Your task to perform on an android device: open app "Microsoft Authenticator" (install if not already installed) and go to login screen Image 0: 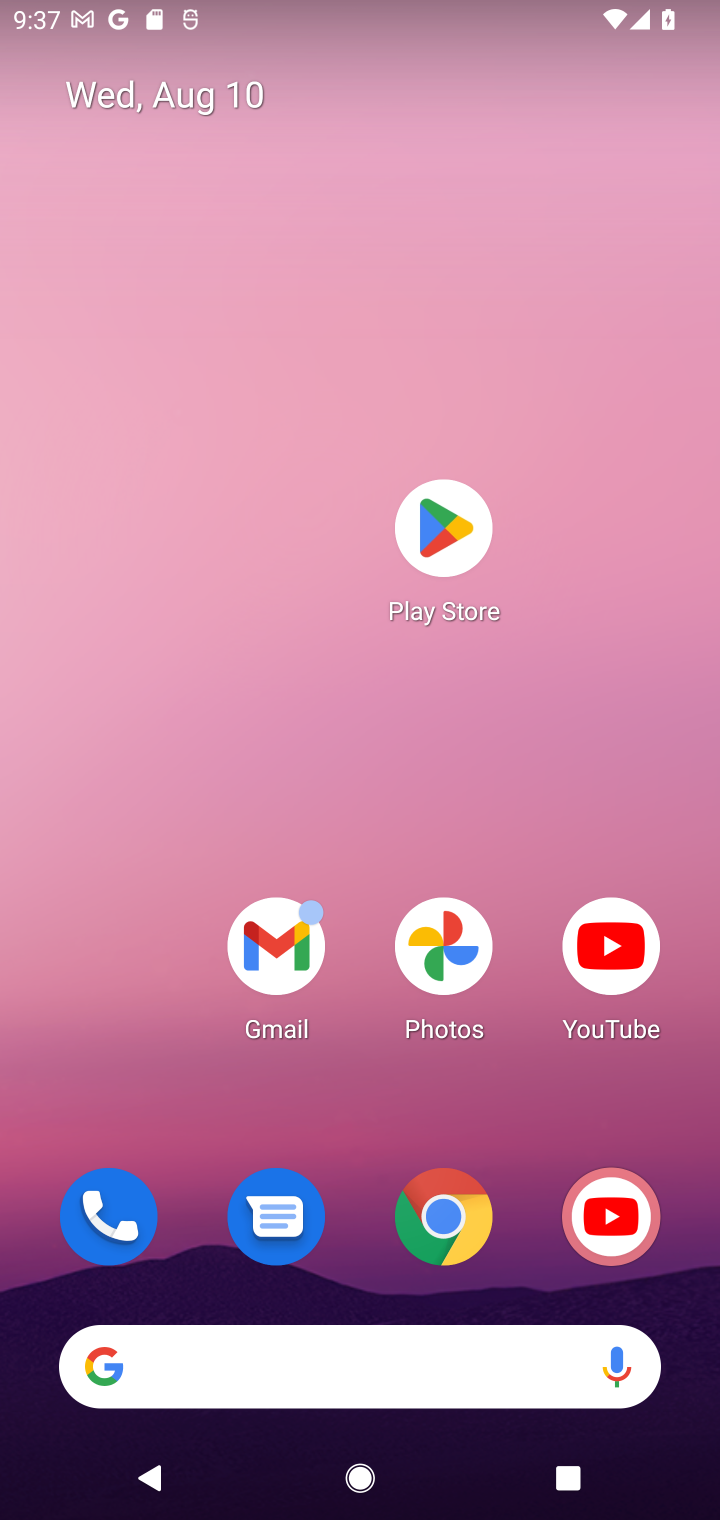
Step 0: click (446, 531)
Your task to perform on an android device: open app "Microsoft Authenticator" (install if not already installed) and go to login screen Image 1: 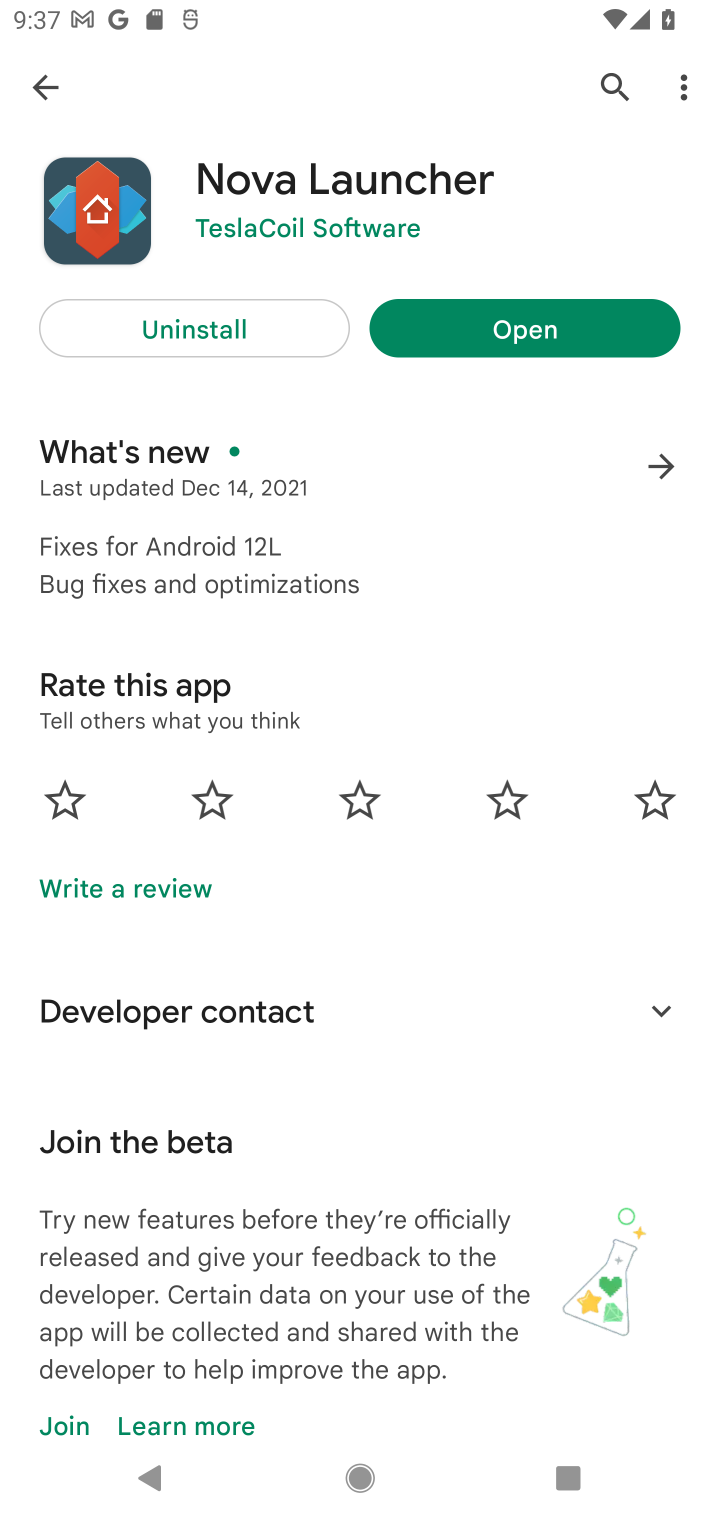
Step 1: click (608, 83)
Your task to perform on an android device: open app "Microsoft Authenticator" (install if not already installed) and go to login screen Image 2: 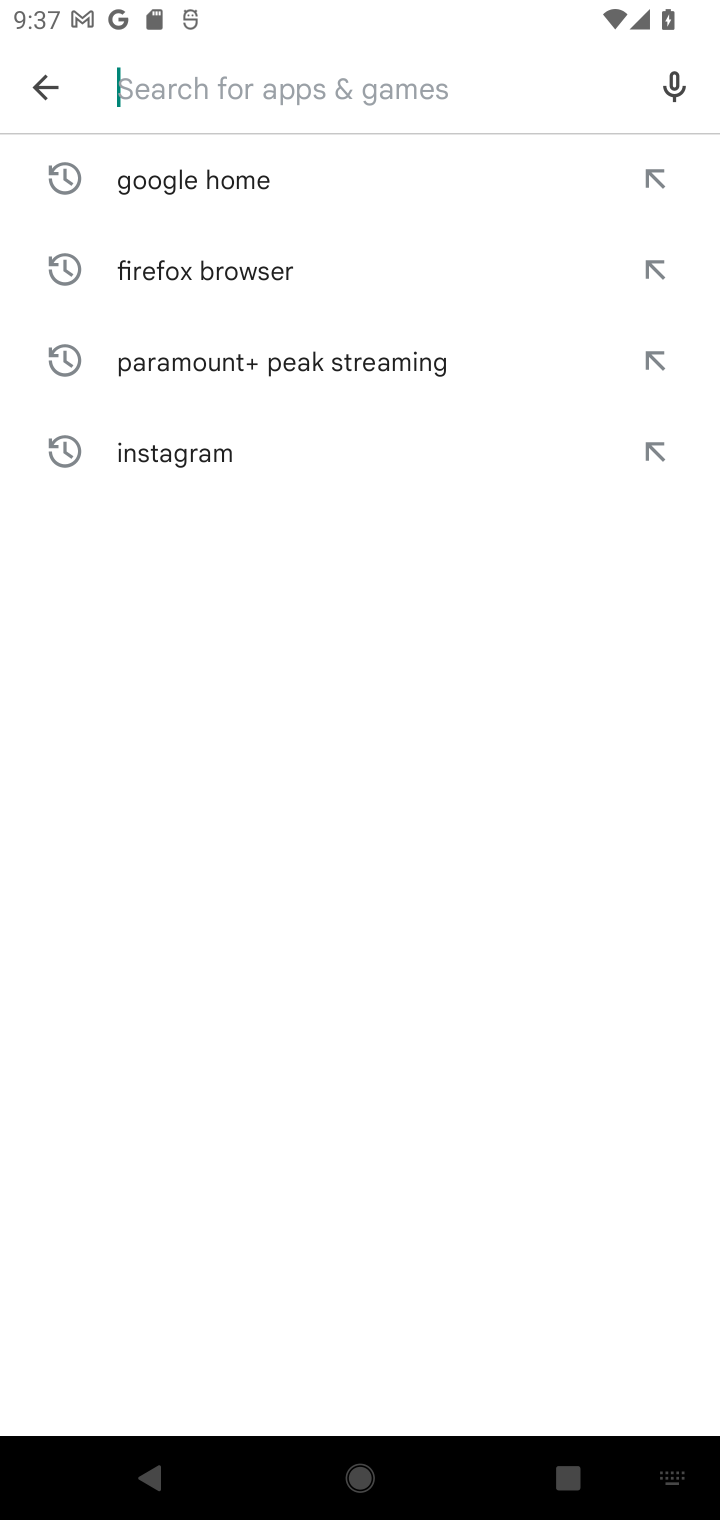
Step 2: type "Microsoft Authenticator"
Your task to perform on an android device: open app "Microsoft Authenticator" (install if not already installed) and go to login screen Image 3: 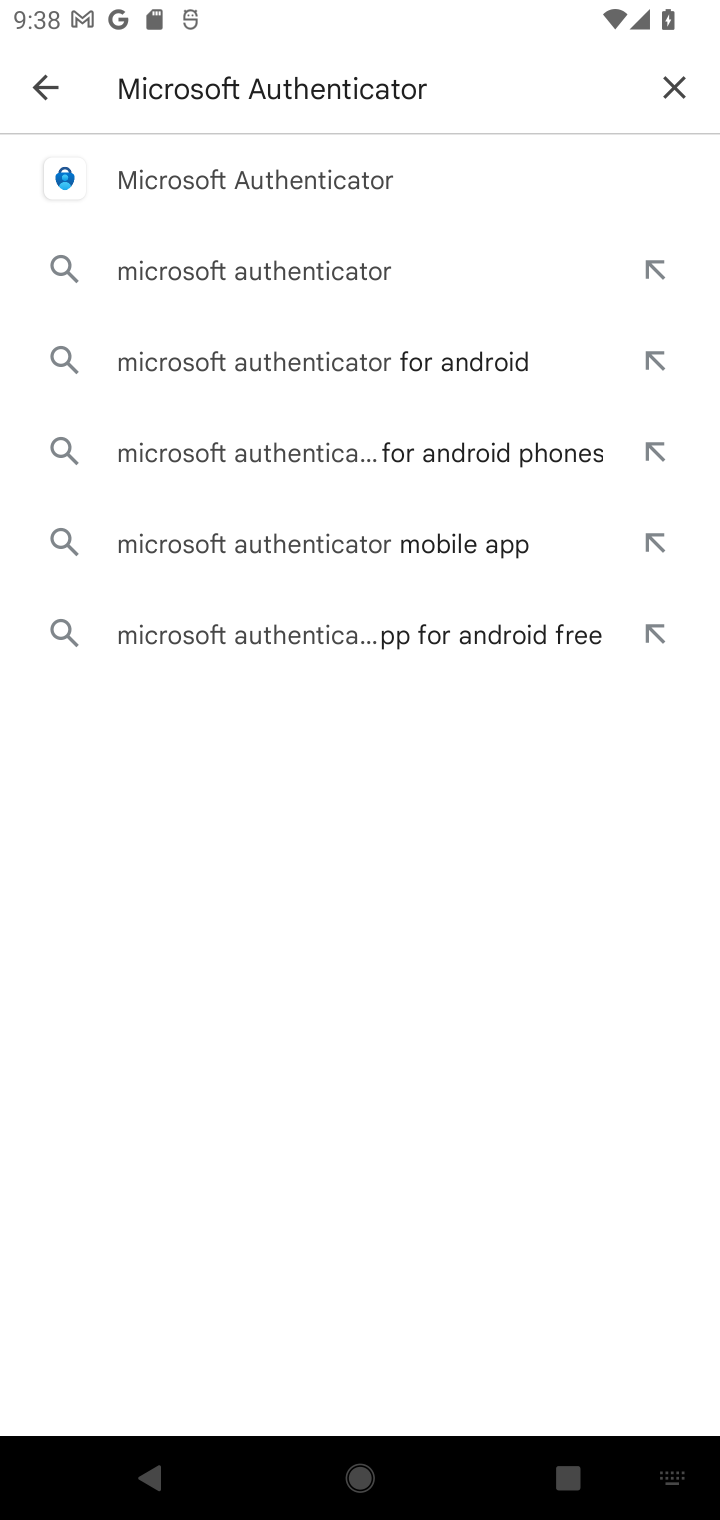
Step 3: click (249, 188)
Your task to perform on an android device: open app "Microsoft Authenticator" (install if not already installed) and go to login screen Image 4: 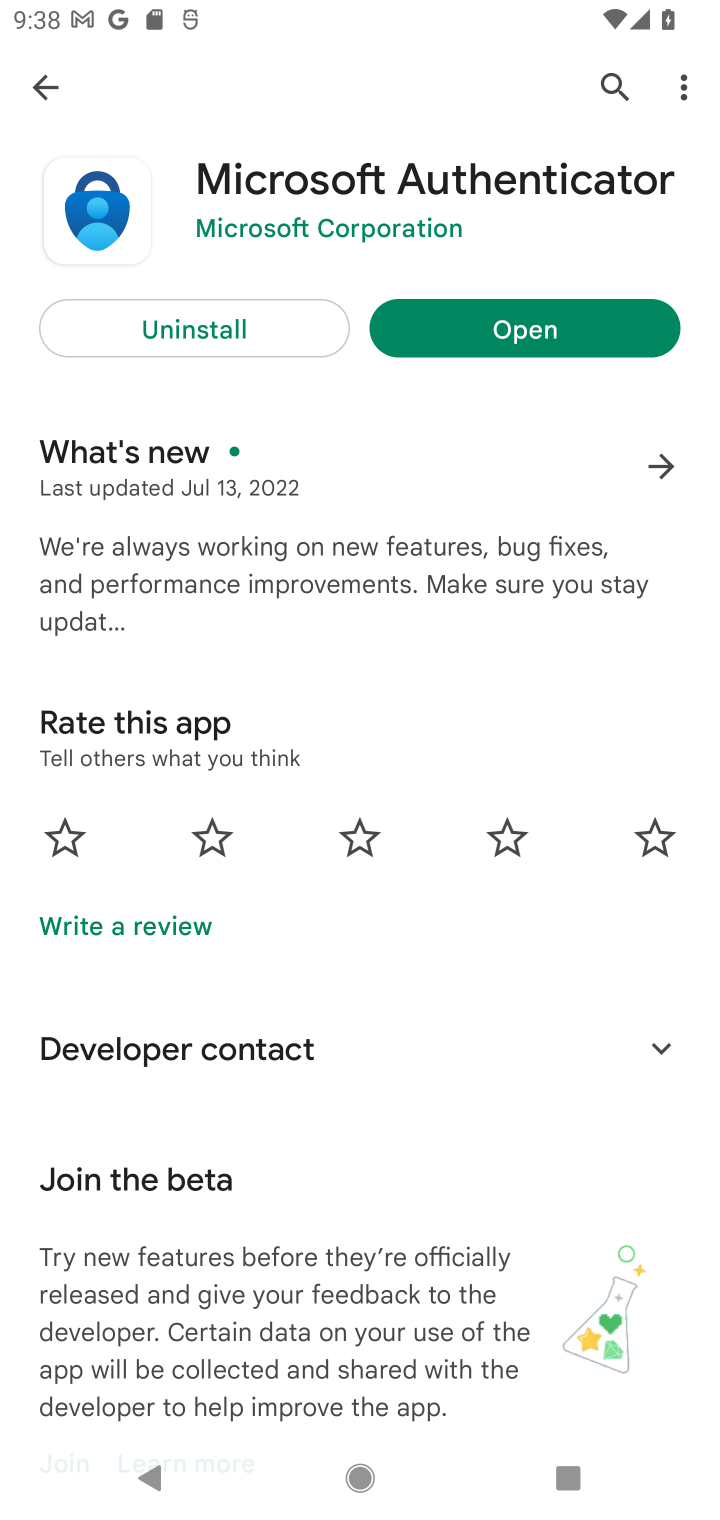
Step 4: click (539, 330)
Your task to perform on an android device: open app "Microsoft Authenticator" (install if not already installed) and go to login screen Image 5: 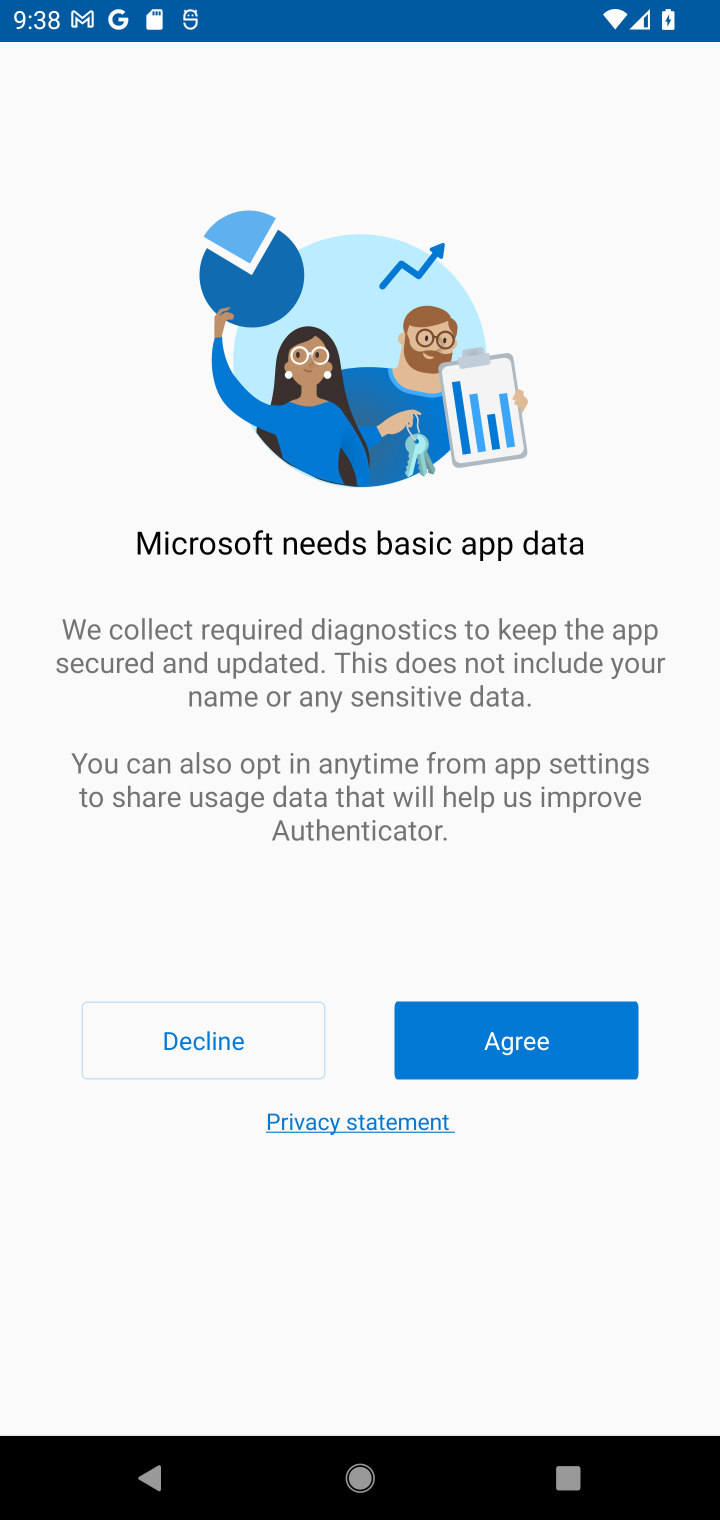
Step 5: click (518, 1045)
Your task to perform on an android device: open app "Microsoft Authenticator" (install if not already installed) and go to login screen Image 6: 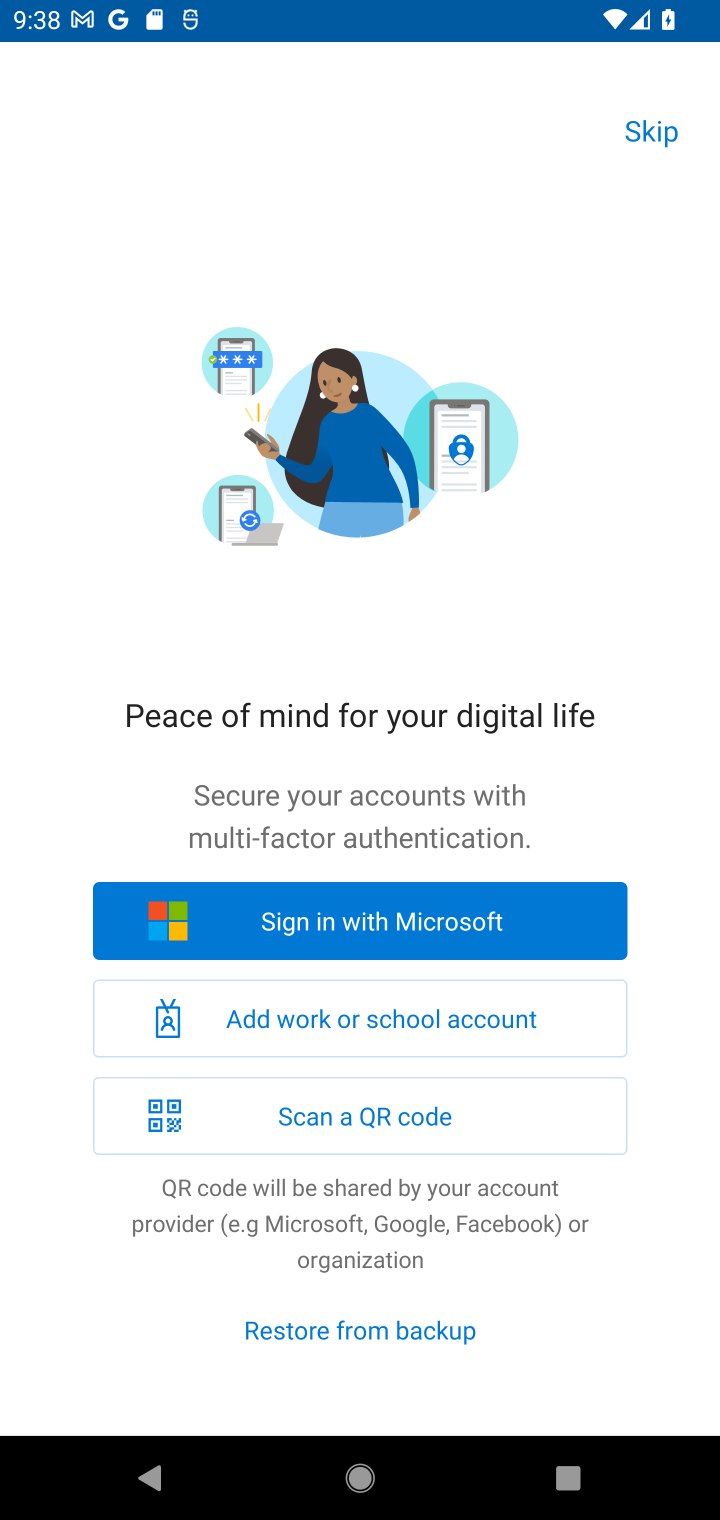
Step 6: task complete